Your task to perform on an android device: Search for Italian restaurants on Maps Image 0: 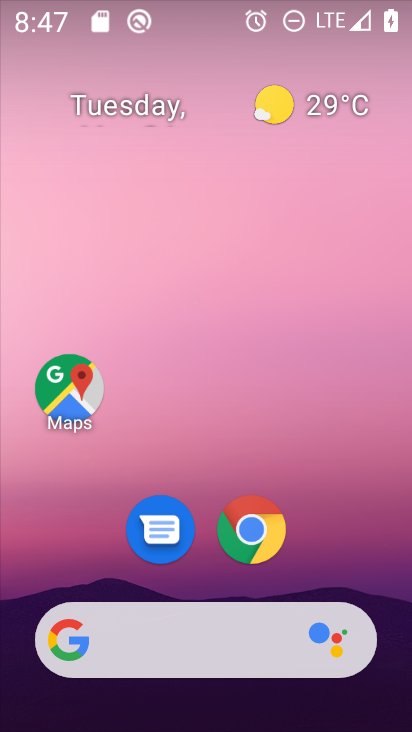
Step 0: drag from (396, 638) to (315, 87)
Your task to perform on an android device: Search for Italian restaurants on Maps Image 1: 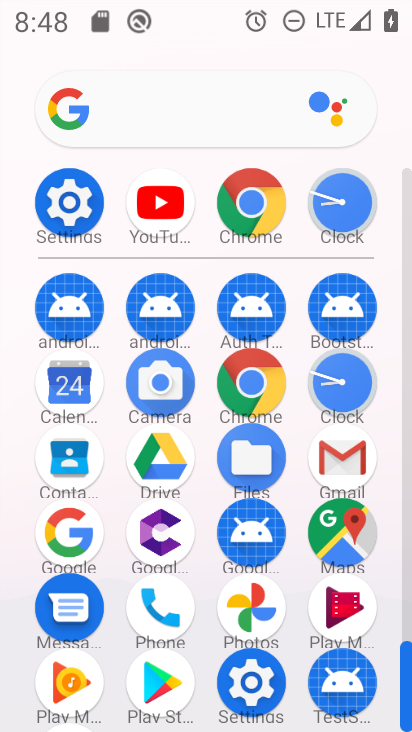
Step 1: click (353, 528)
Your task to perform on an android device: Search for Italian restaurants on Maps Image 2: 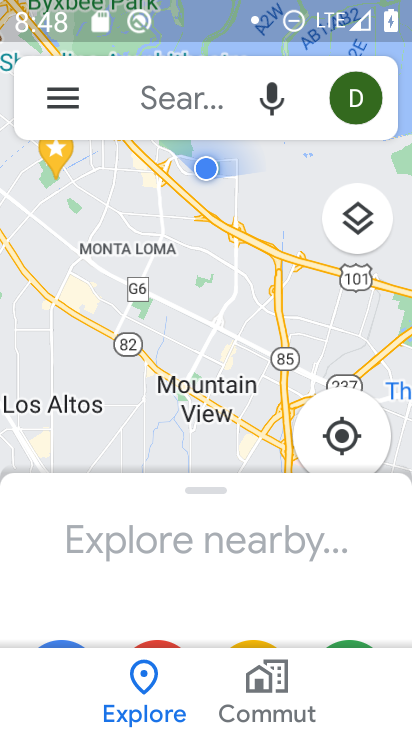
Step 2: click (151, 99)
Your task to perform on an android device: Search for Italian restaurants on Maps Image 3: 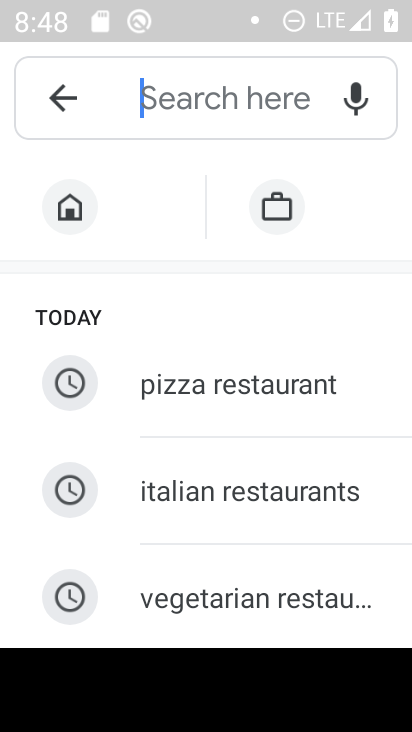
Step 3: click (255, 527)
Your task to perform on an android device: Search for Italian restaurants on Maps Image 4: 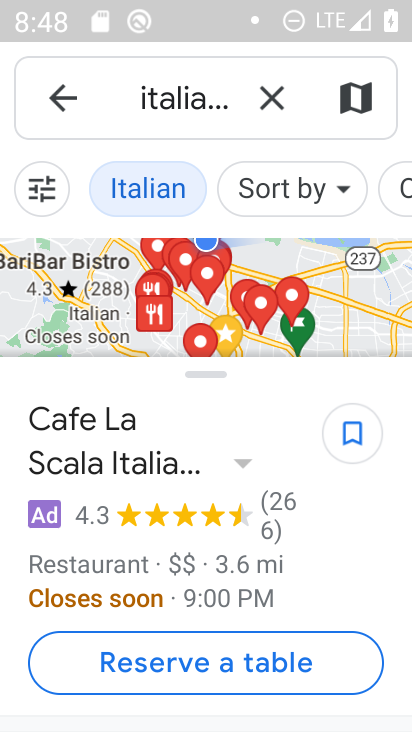
Step 4: task complete